Your task to perform on an android device: make emails show in primary in the gmail app Image 0: 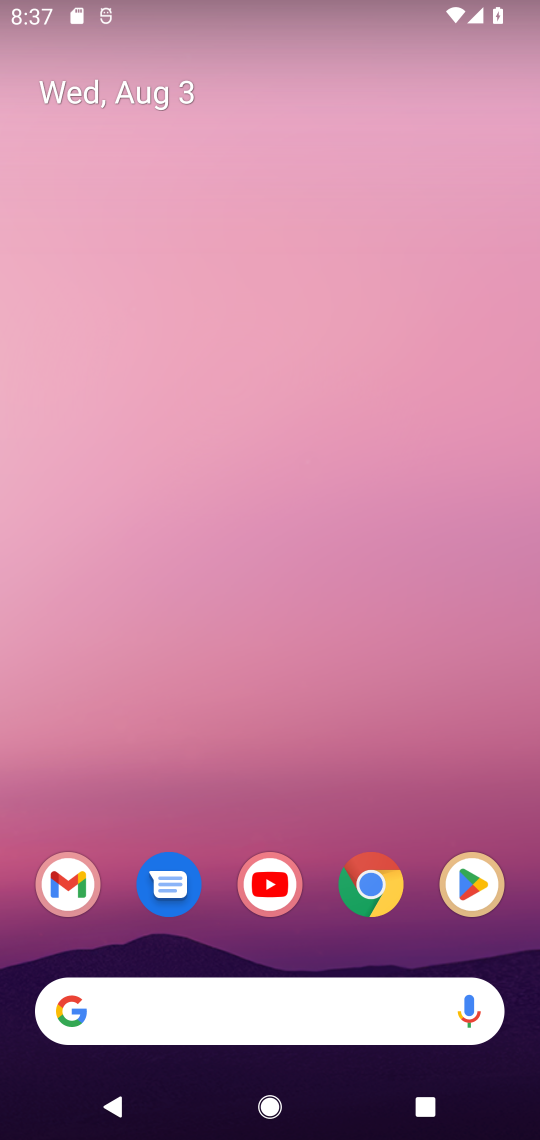
Step 0: drag from (389, 819) to (338, 263)
Your task to perform on an android device: make emails show in primary in the gmail app Image 1: 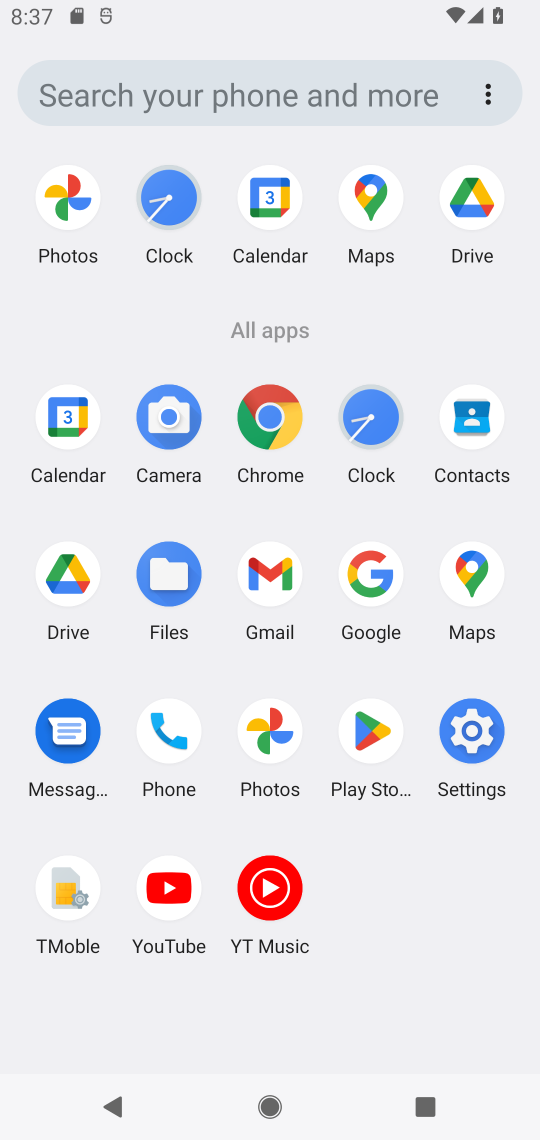
Step 1: click (262, 585)
Your task to perform on an android device: make emails show in primary in the gmail app Image 2: 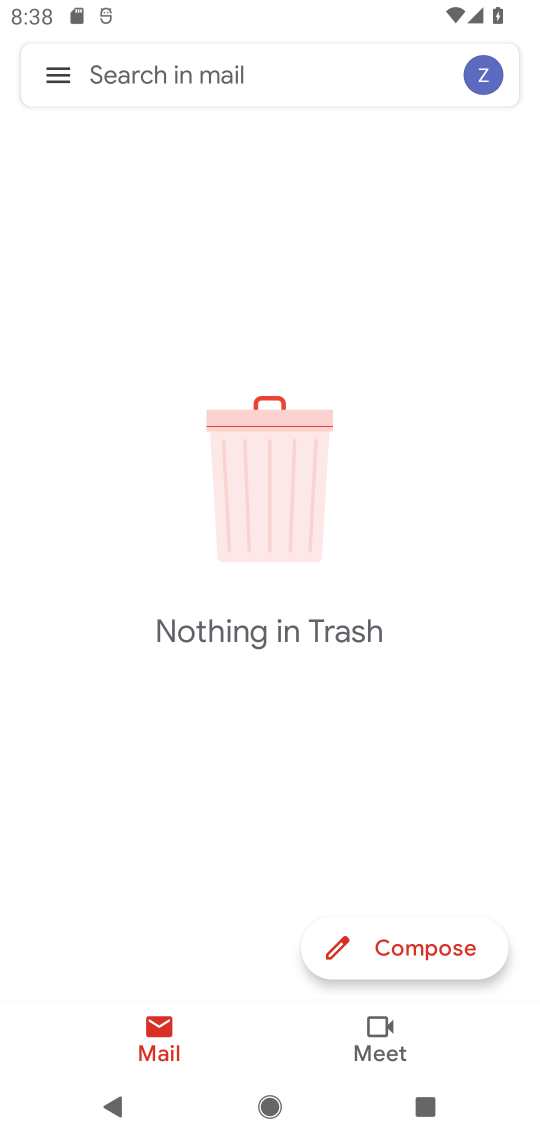
Step 2: click (52, 80)
Your task to perform on an android device: make emails show in primary in the gmail app Image 3: 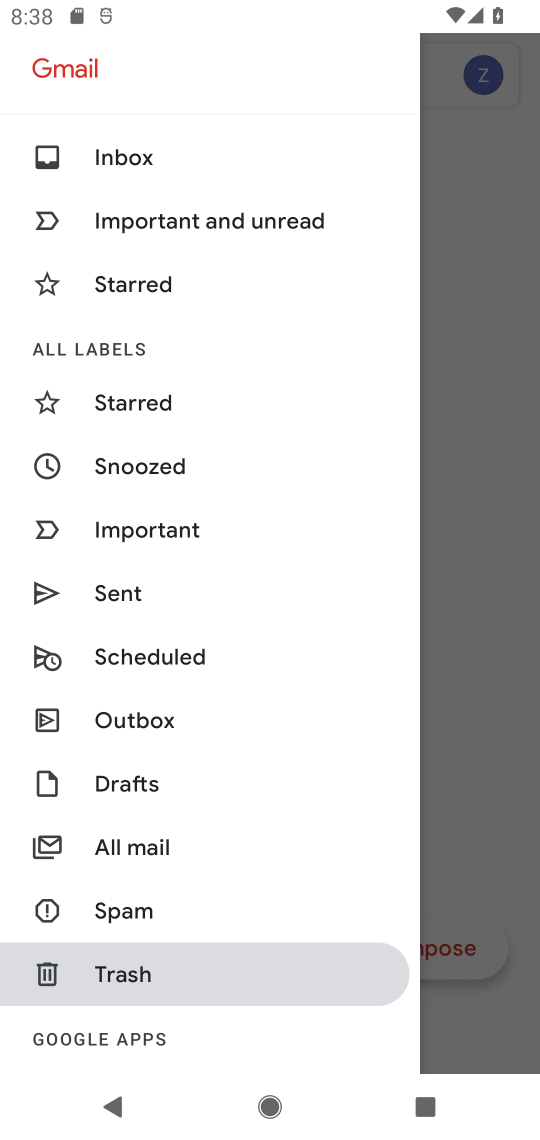
Step 3: drag from (280, 914) to (241, 426)
Your task to perform on an android device: make emails show in primary in the gmail app Image 4: 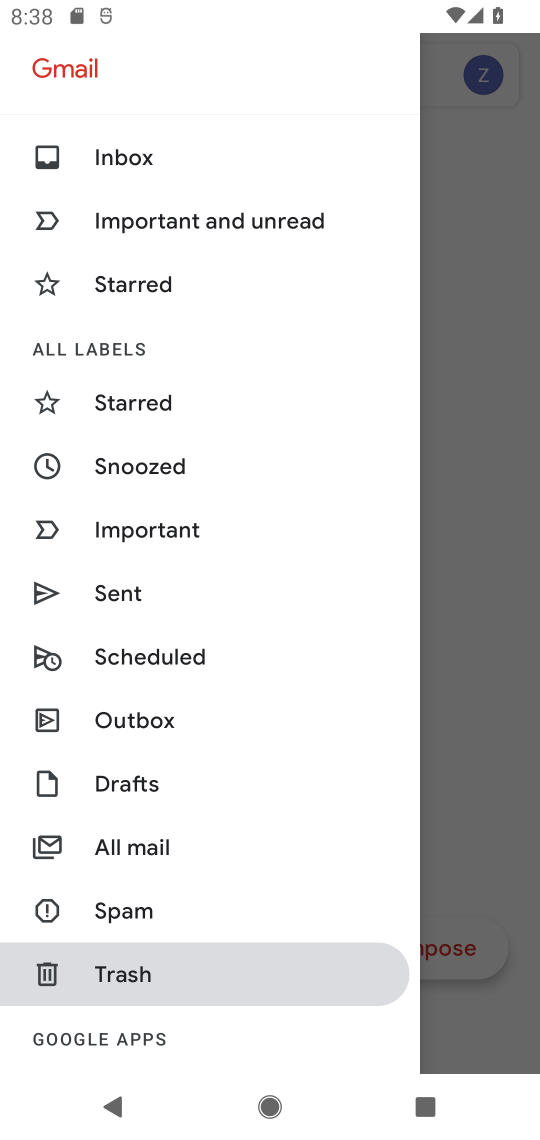
Step 4: drag from (330, 827) to (266, 396)
Your task to perform on an android device: make emails show in primary in the gmail app Image 5: 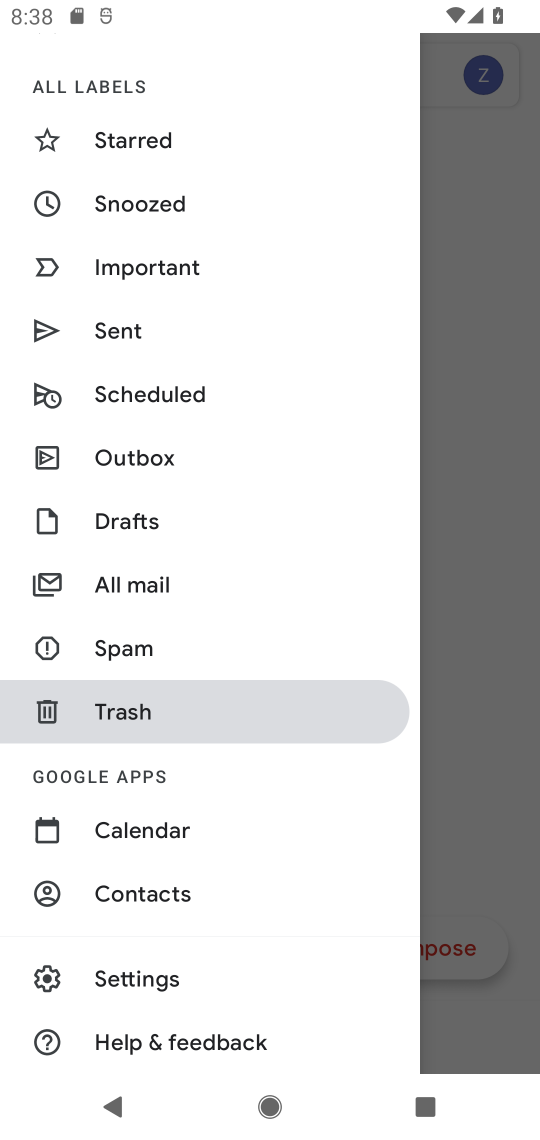
Step 5: click (164, 970)
Your task to perform on an android device: make emails show in primary in the gmail app Image 6: 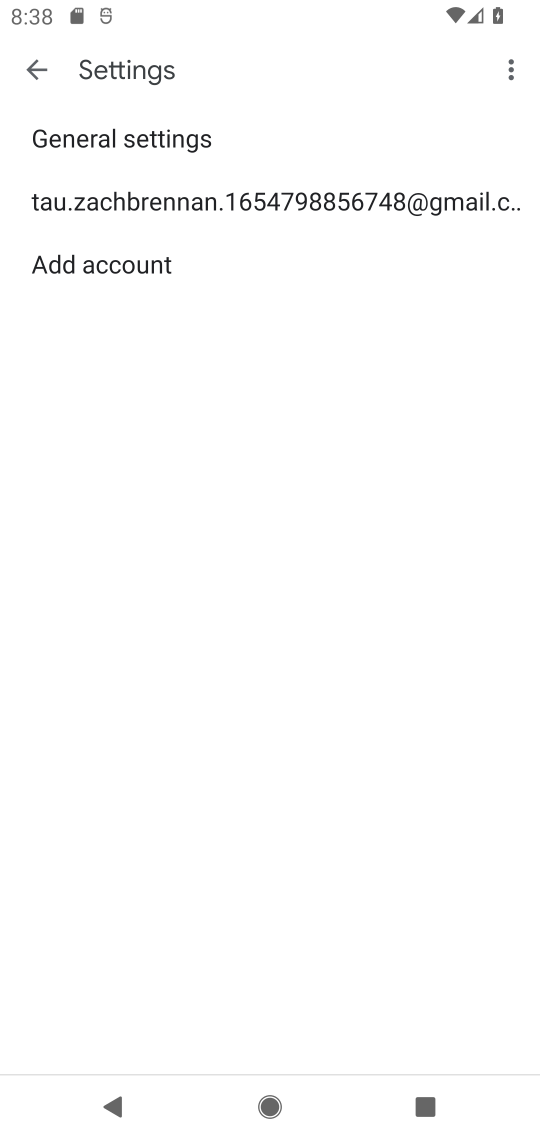
Step 6: click (288, 190)
Your task to perform on an android device: make emails show in primary in the gmail app Image 7: 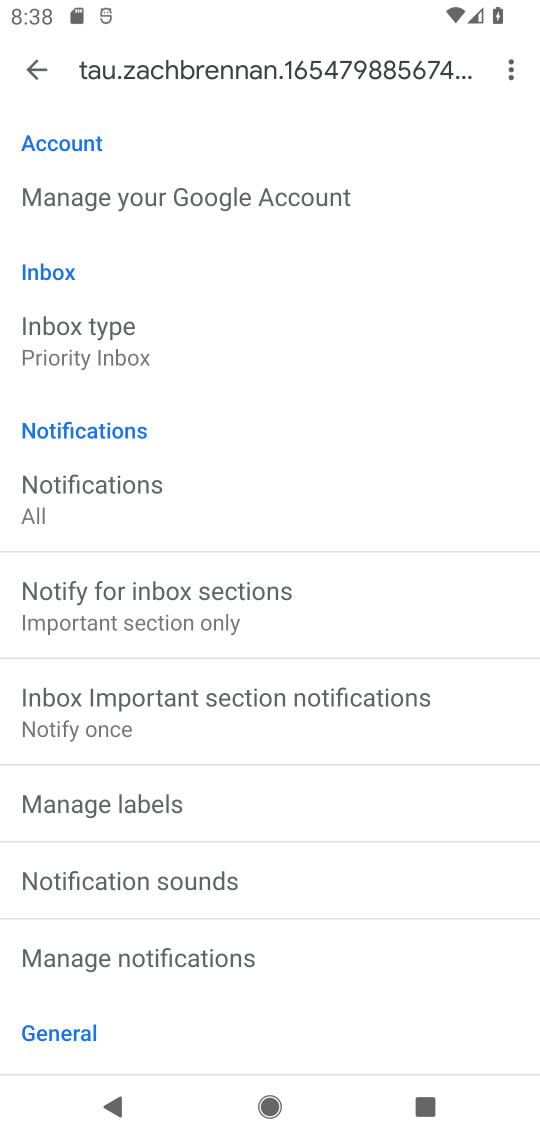
Step 7: click (169, 332)
Your task to perform on an android device: make emails show in primary in the gmail app Image 8: 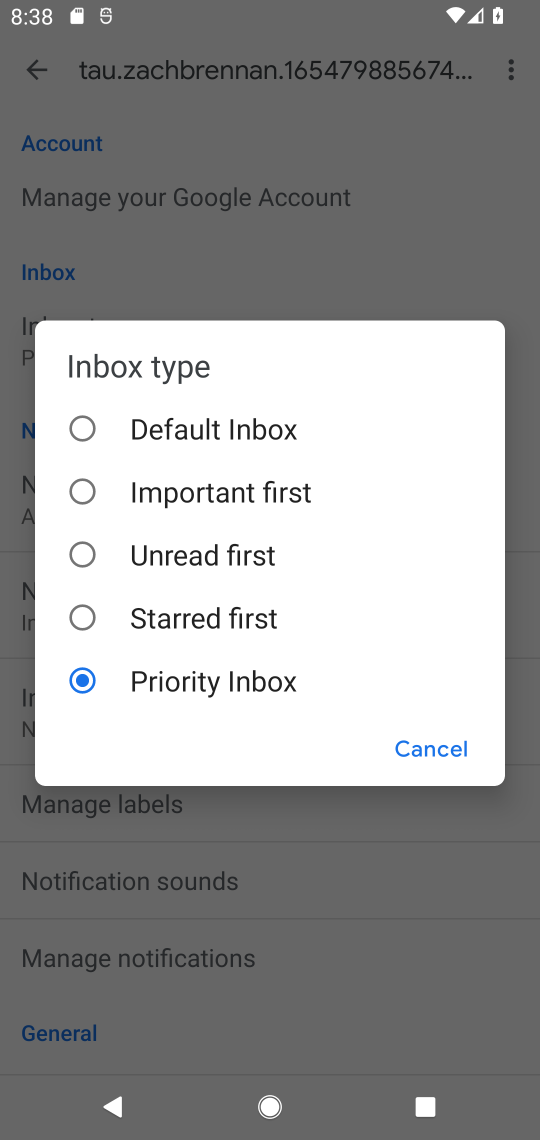
Step 8: click (208, 426)
Your task to perform on an android device: make emails show in primary in the gmail app Image 9: 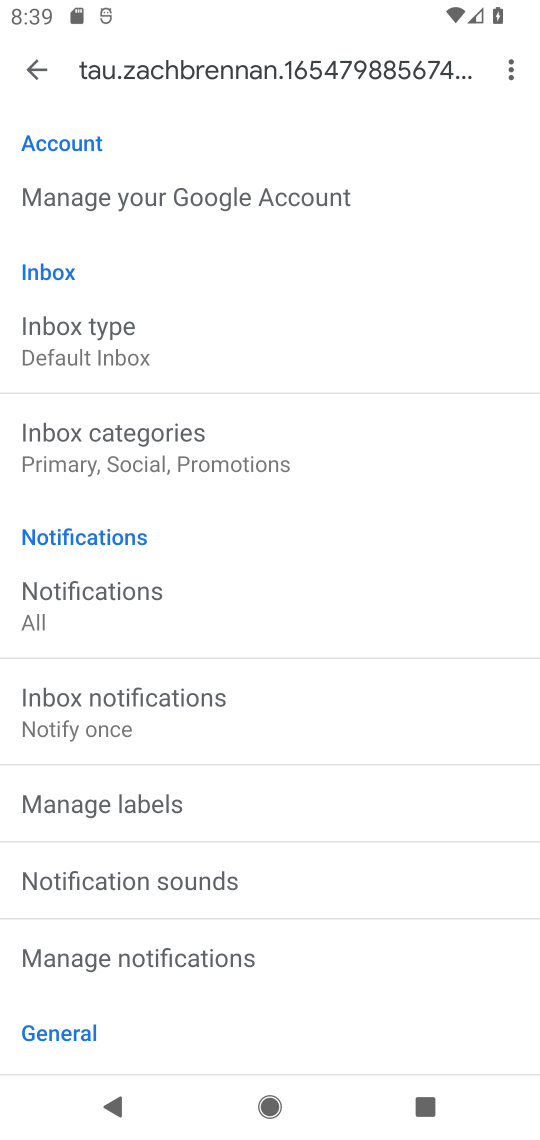
Step 9: click (172, 436)
Your task to perform on an android device: make emails show in primary in the gmail app Image 10: 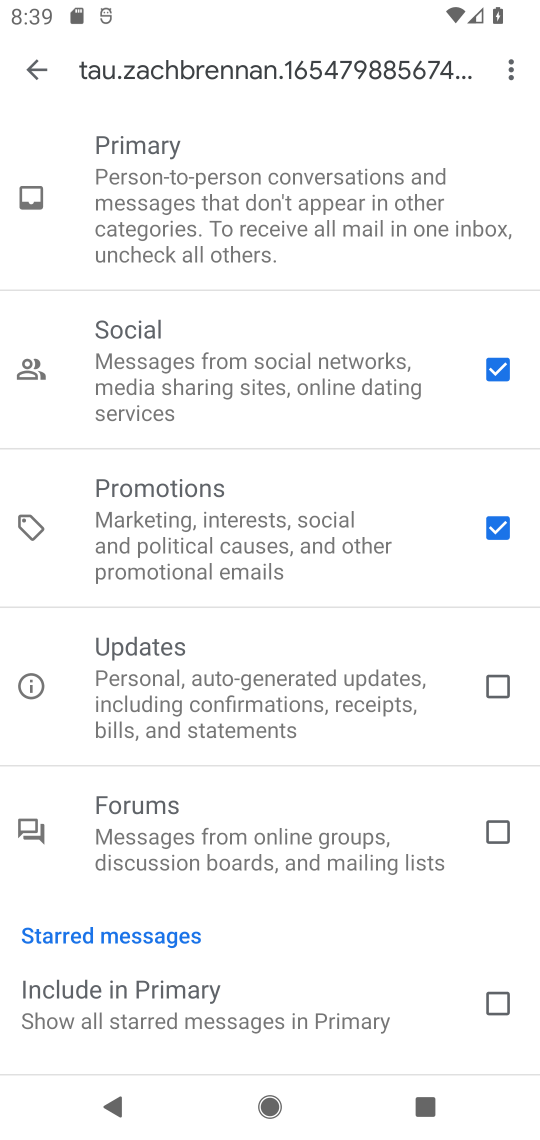
Step 10: click (495, 526)
Your task to perform on an android device: make emails show in primary in the gmail app Image 11: 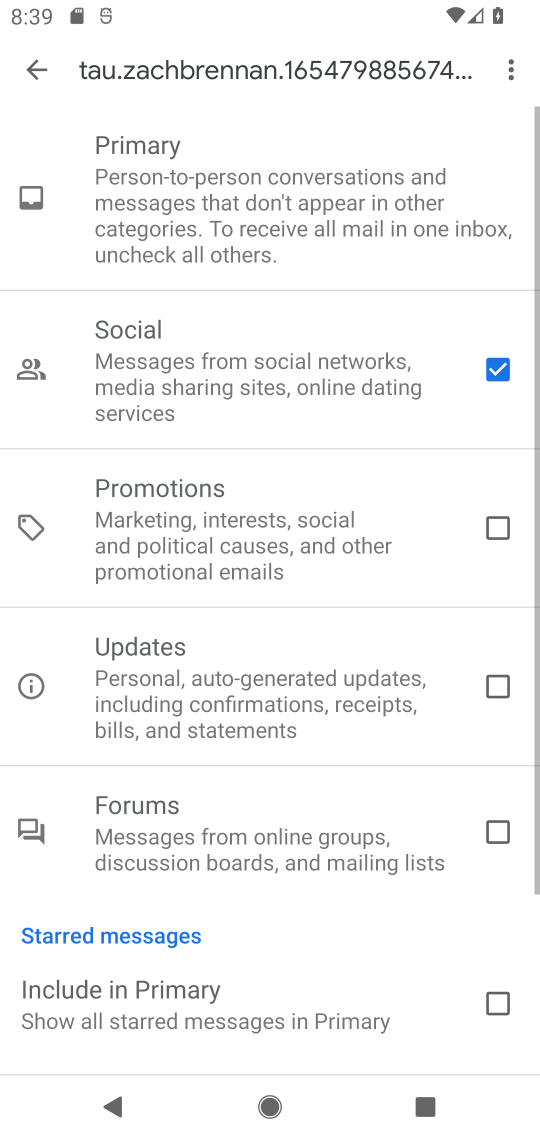
Step 11: click (503, 364)
Your task to perform on an android device: make emails show in primary in the gmail app Image 12: 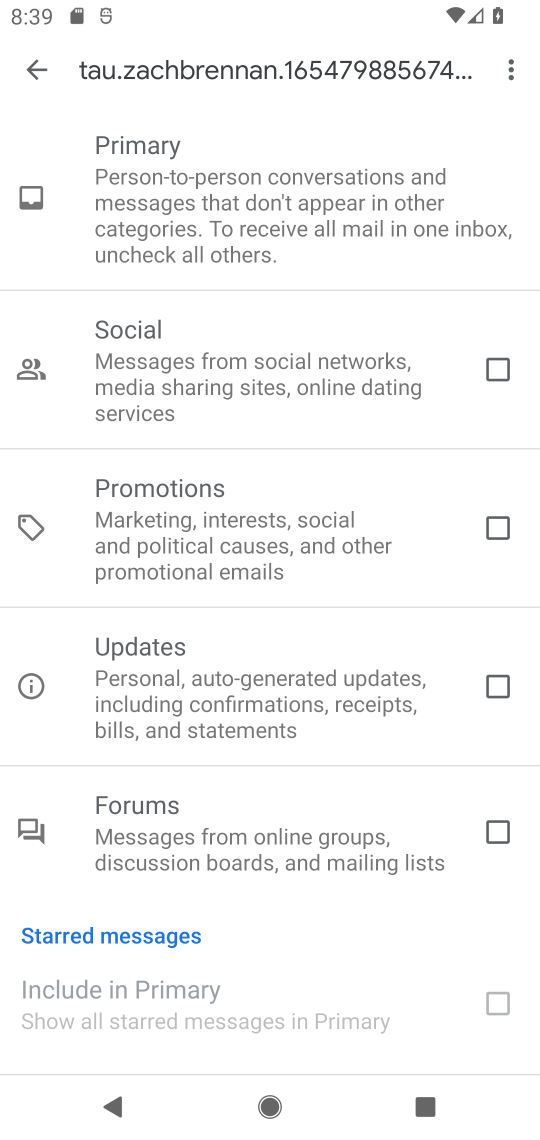
Step 12: task complete